Your task to perform on an android device: change alarm snooze length Image 0: 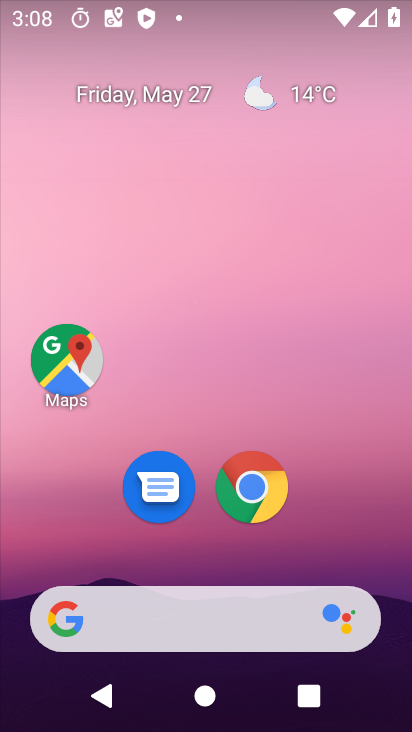
Step 0: drag from (342, 517) to (303, 97)
Your task to perform on an android device: change alarm snooze length Image 1: 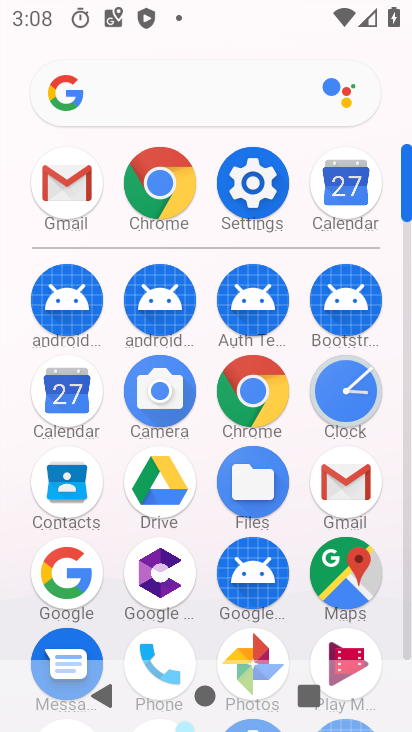
Step 1: click (351, 385)
Your task to perform on an android device: change alarm snooze length Image 2: 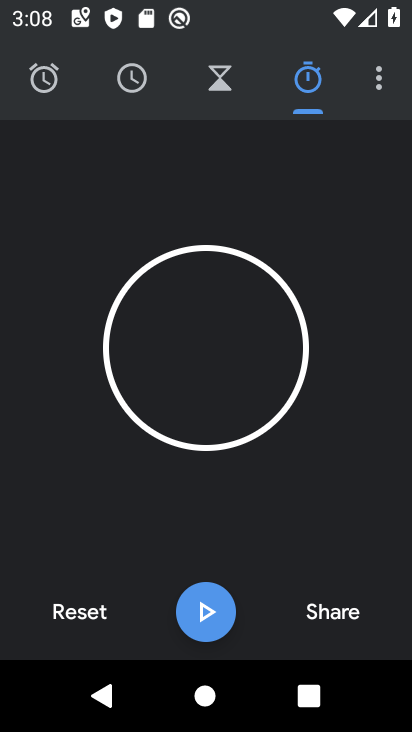
Step 2: click (377, 82)
Your task to perform on an android device: change alarm snooze length Image 3: 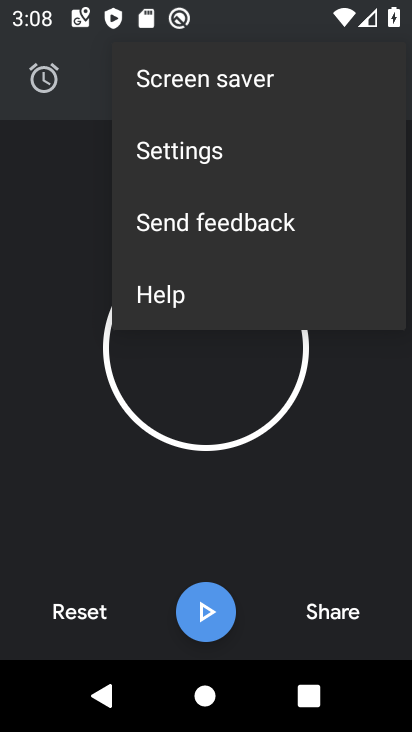
Step 3: click (193, 150)
Your task to perform on an android device: change alarm snooze length Image 4: 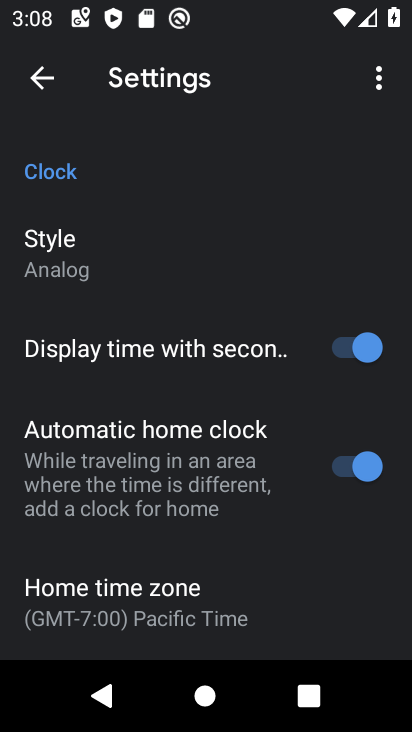
Step 4: drag from (161, 596) to (194, 238)
Your task to perform on an android device: change alarm snooze length Image 5: 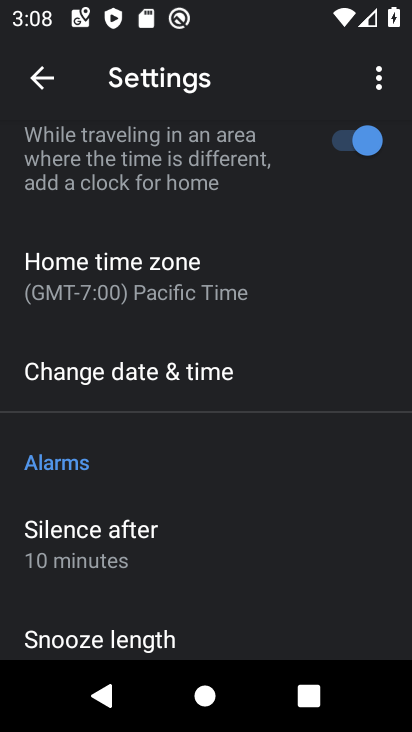
Step 5: drag from (155, 564) to (241, 226)
Your task to perform on an android device: change alarm snooze length Image 6: 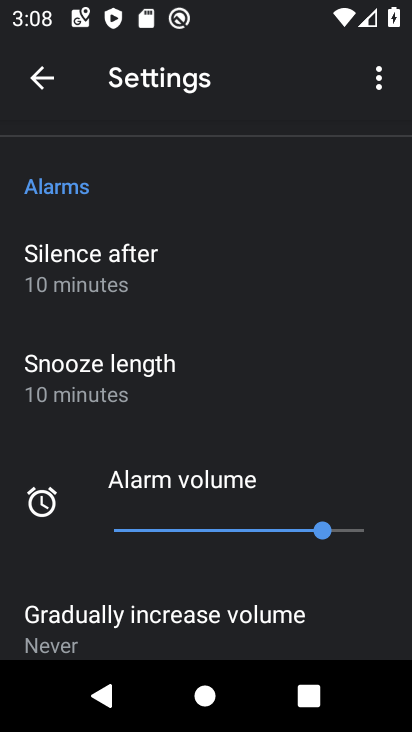
Step 6: click (144, 381)
Your task to perform on an android device: change alarm snooze length Image 7: 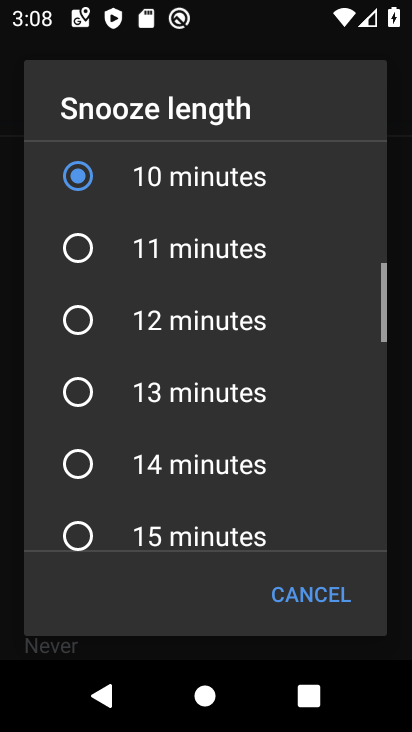
Step 7: click (205, 233)
Your task to perform on an android device: change alarm snooze length Image 8: 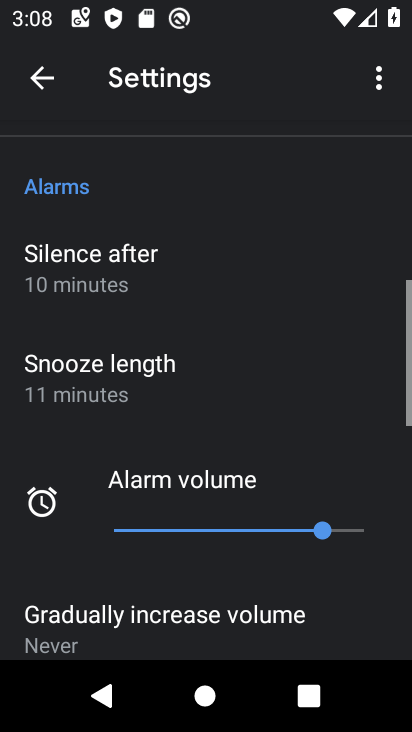
Step 8: task complete